Your task to perform on an android device: open wifi settings Image 0: 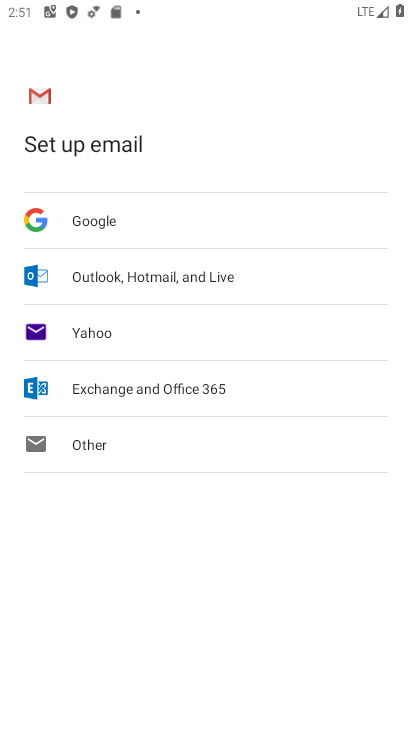
Step 0: press home button
Your task to perform on an android device: open wifi settings Image 1: 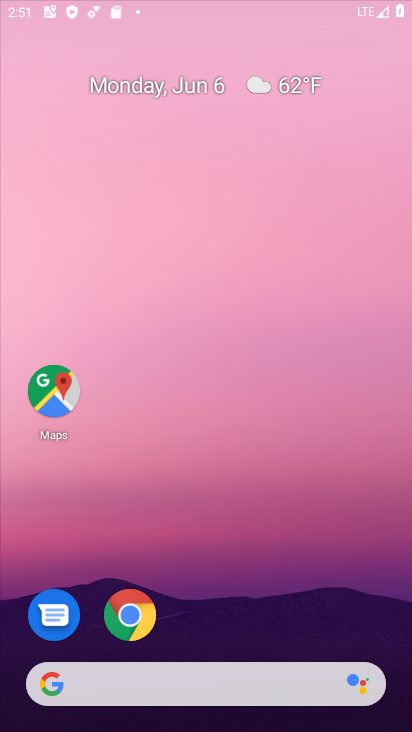
Step 1: drag from (271, 700) to (298, 20)
Your task to perform on an android device: open wifi settings Image 2: 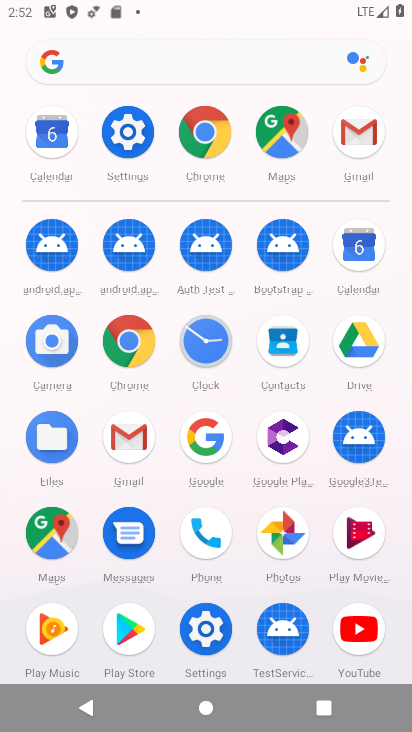
Step 2: click (126, 140)
Your task to perform on an android device: open wifi settings Image 3: 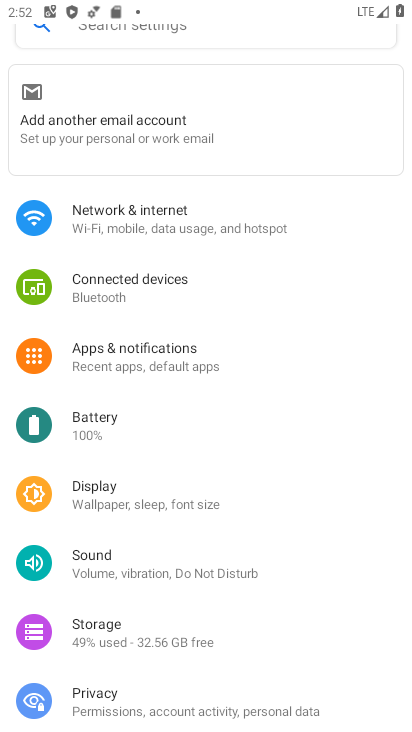
Step 3: click (176, 212)
Your task to perform on an android device: open wifi settings Image 4: 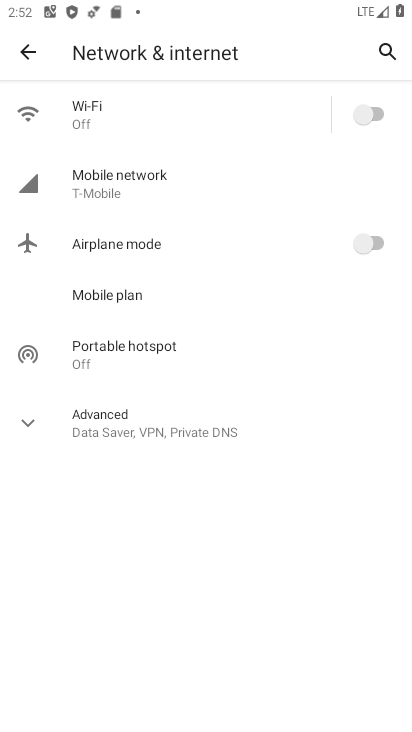
Step 4: click (105, 106)
Your task to perform on an android device: open wifi settings Image 5: 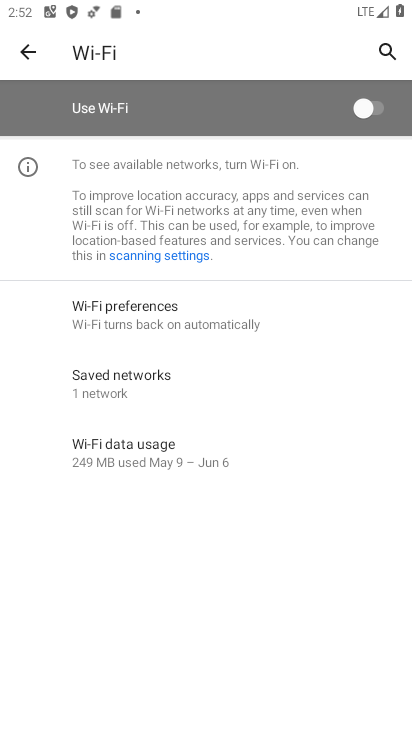
Step 5: task complete